Your task to perform on an android device: turn off improve location accuracy Image 0: 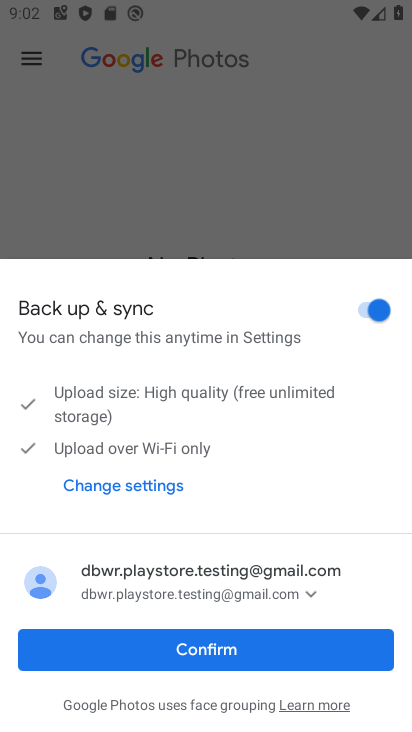
Step 0: press home button
Your task to perform on an android device: turn off improve location accuracy Image 1: 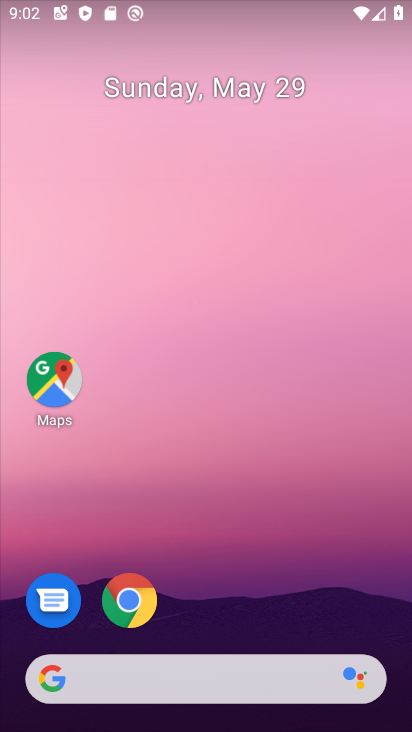
Step 1: drag from (225, 711) to (190, 172)
Your task to perform on an android device: turn off improve location accuracy Image 2: 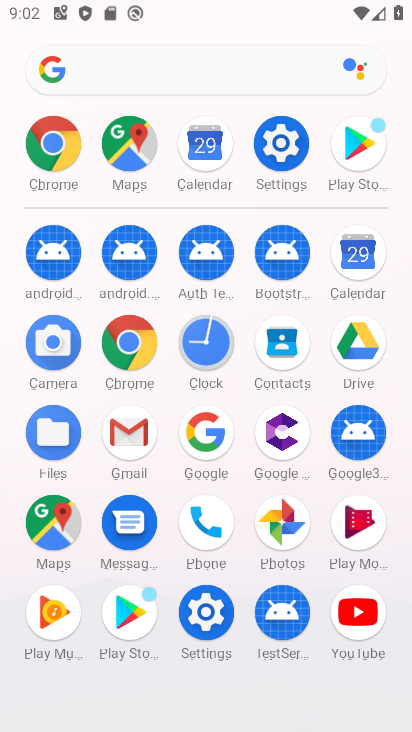
Step 2: click (279, 139)
Your task to perform on an android device: turn off improve location accuracy Image 3: 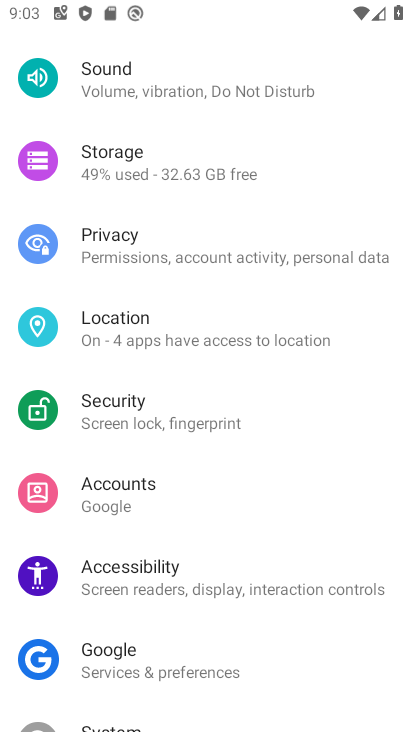
Step 3: click (122, 326)
Your task to perform on an android device: turn off improve location accuracy Image 4: 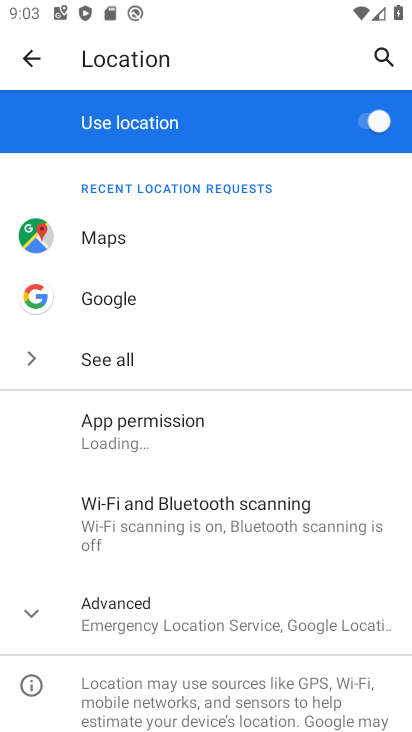
Step 4: drag from (161, 665) to (169, 336)
Your task to perform on an android device: turn off improve location accuracy Image 5: 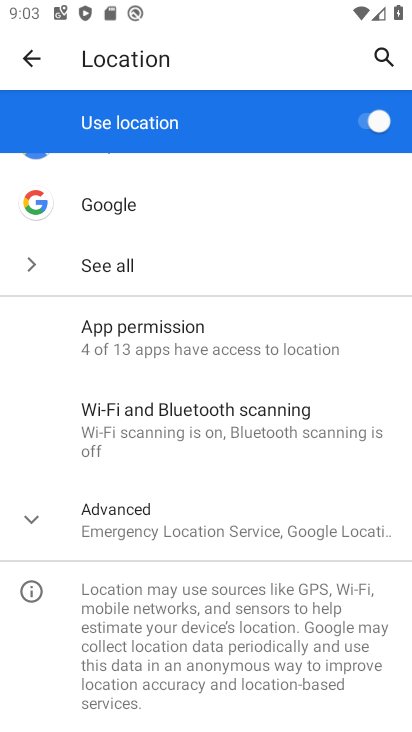
Step 5: click (124, 507)
Your task to perform on an android device: turn off improve location accuracy Image 6: 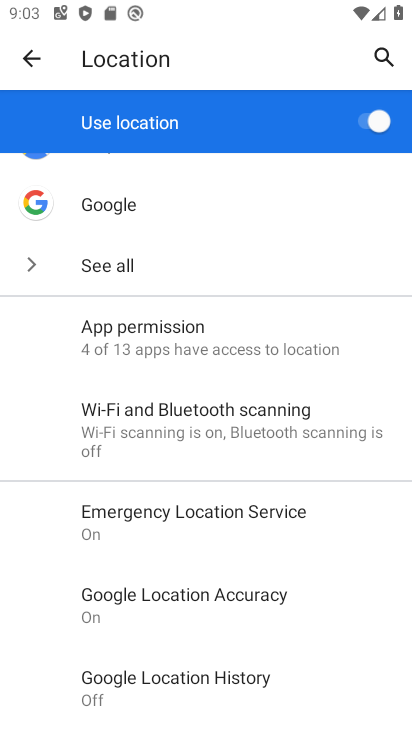
Step 6: click (190, 591)
Your task to perform on an android device: turn off improve location accuracy Image 7: 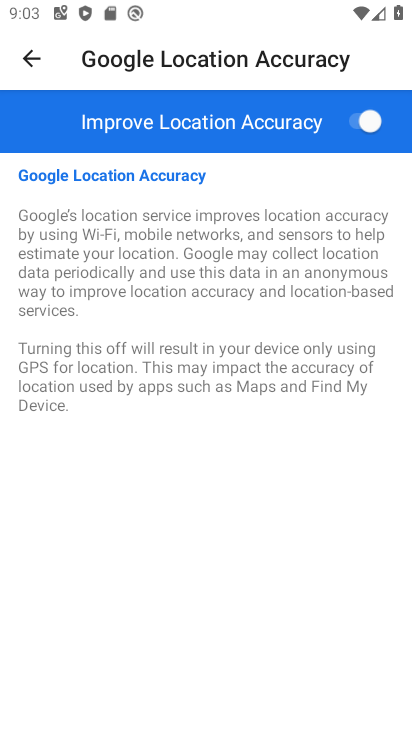
Step 7: click (357, 129)
Your task to perform on an android device: turn off improve location accuracy Image 8: 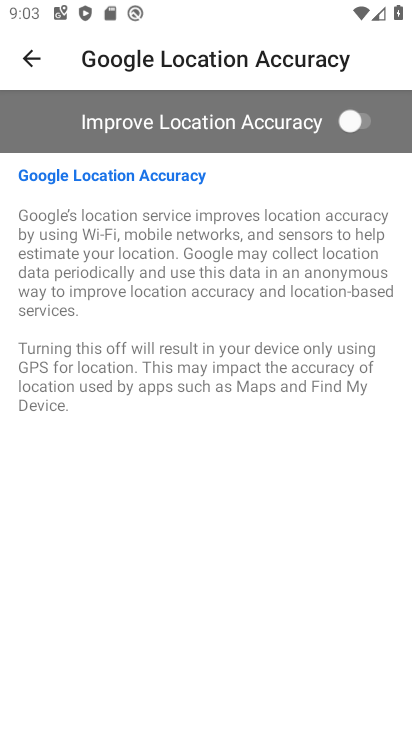
Step 8: task complete